Your task to perform on an android device: Open battery settings Image 0: 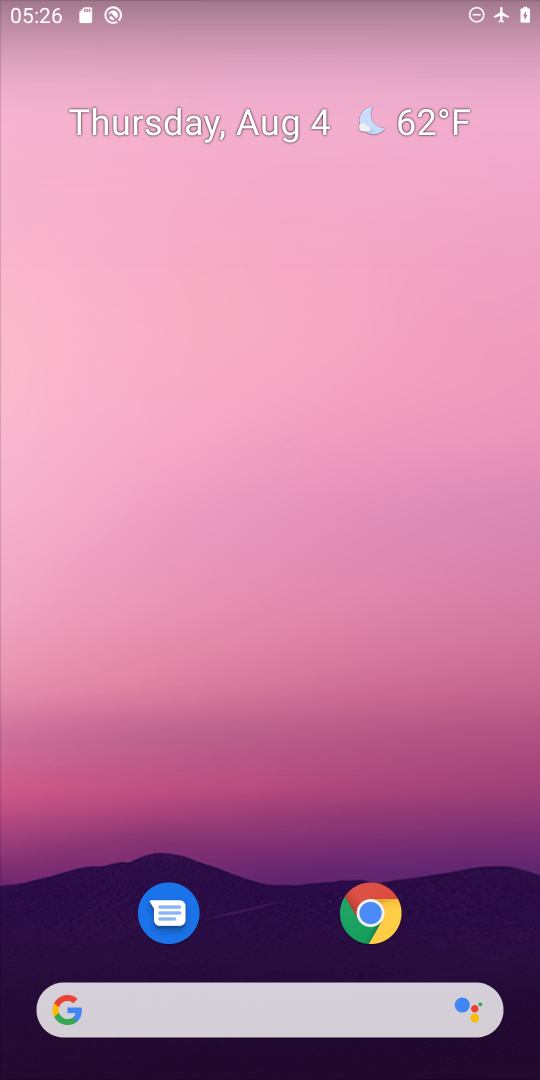
Step 0: drag from (434, 1020) to (427, 2)
Your task to perform on an android device: Open battery settings Image 1: 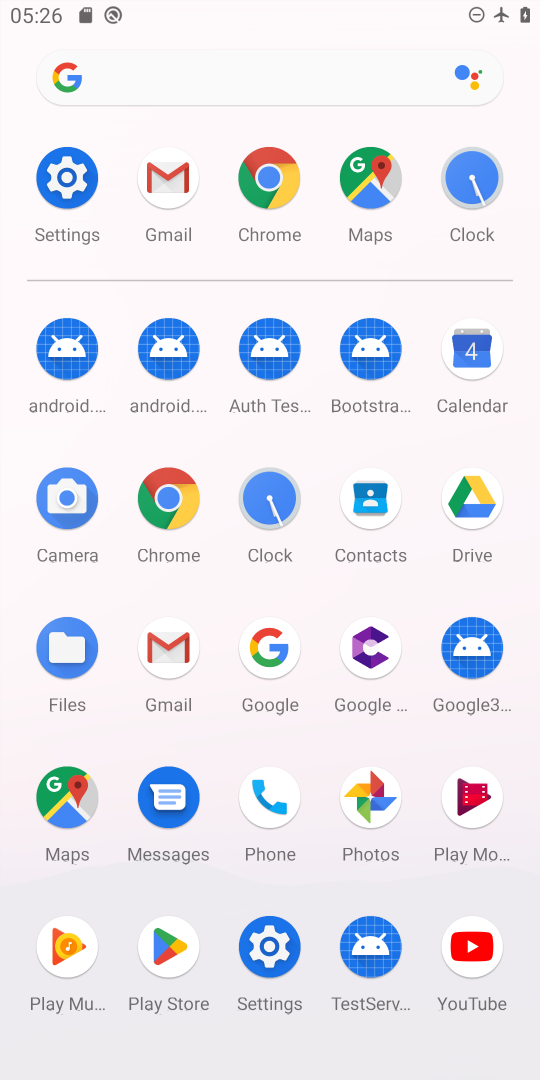
Step 1: click (50, 179)
Your task to perform on an android device: Open battery settings Image 2: 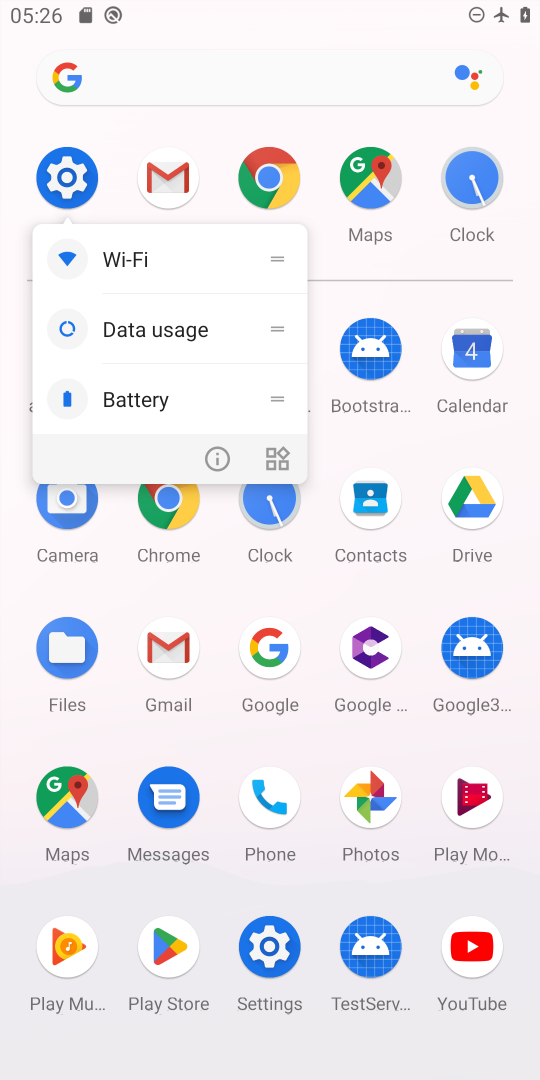
Step 2: click (52, 181)
Your task to perform on an android device: Open battery settings Image 3: 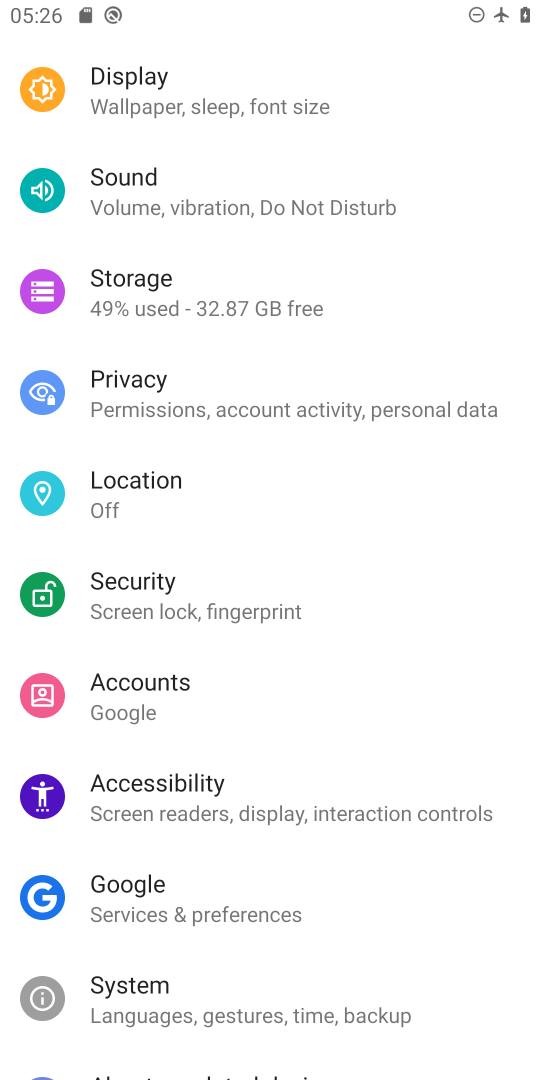
Step 3: drag from (267, 150) to (219, 831)
Your task to perform on an android device: Open battery settings Image 4: 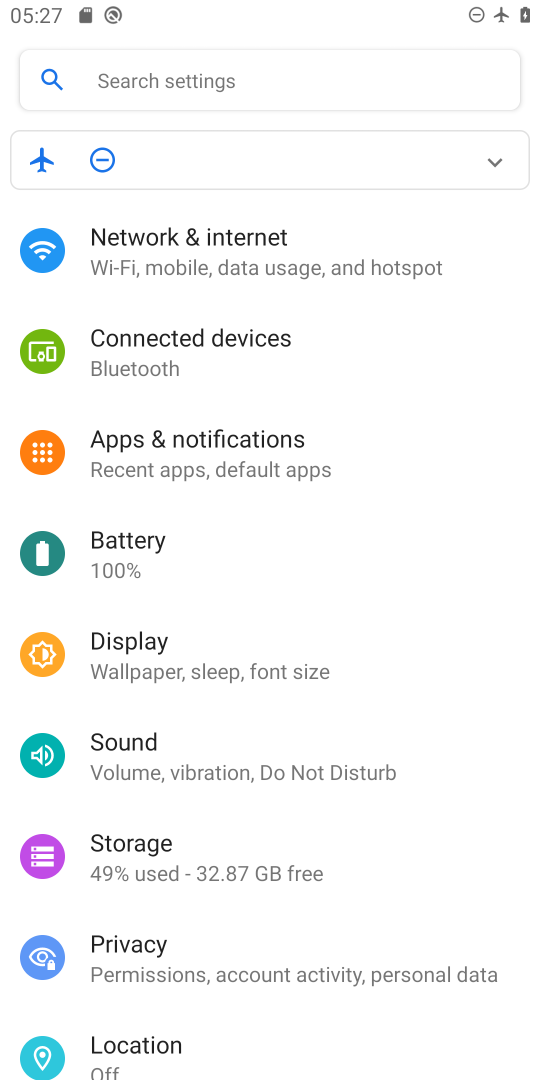
Step 4: click (162, 559)
Your task to perform on an android device: Open battery settings Image 5: 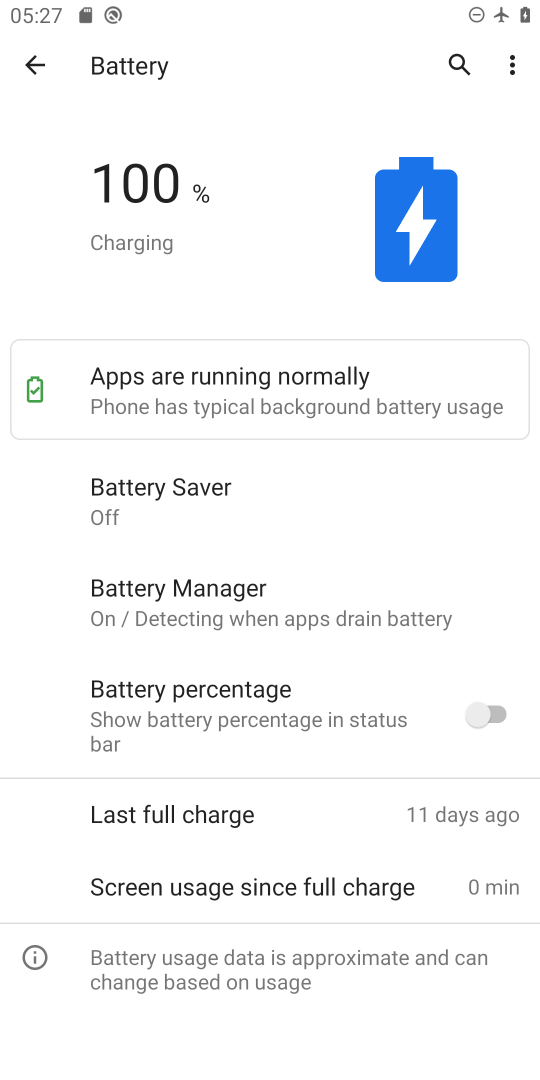
Step 5: task complete